Your task to perform on an android device: Go to calendar. Show me events next week Image 0: 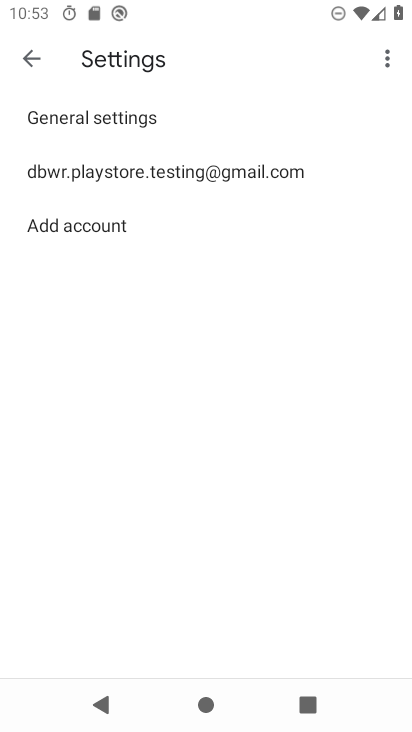
Step 0: press home button
Your task to perform on an android device: Go to calendar. Show me events next week Image 1: 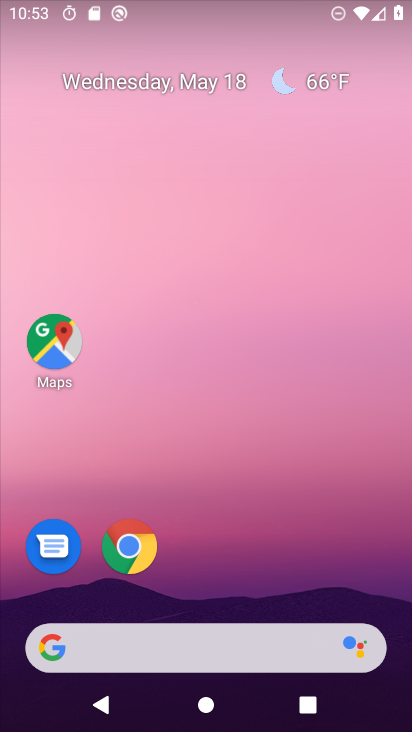
Step 1: click (214, 83)
Your task to perform on an android device: Go to calendar. Show me events next week Image 2: 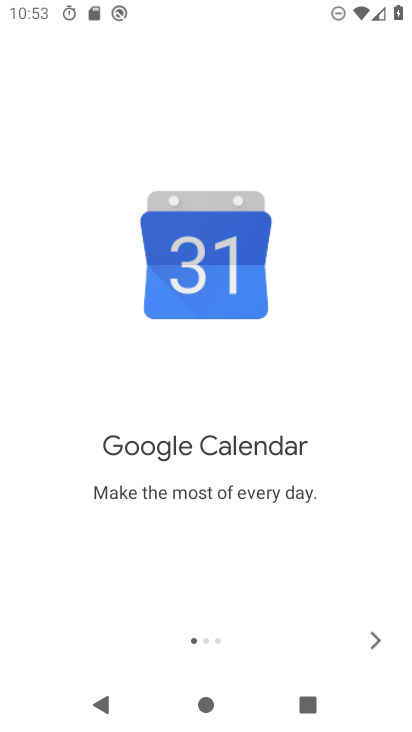
Step 2: click (379, 636)
Your task to perform on an android device: Go to calendar. Show me events next week Image 3: 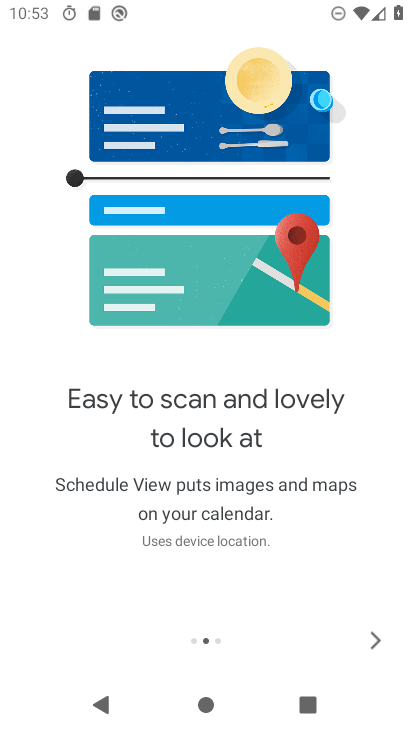
Step 3: click (379, 636)
Your task to perform on an android device: Go to calendar. Show me events next week Image 4: 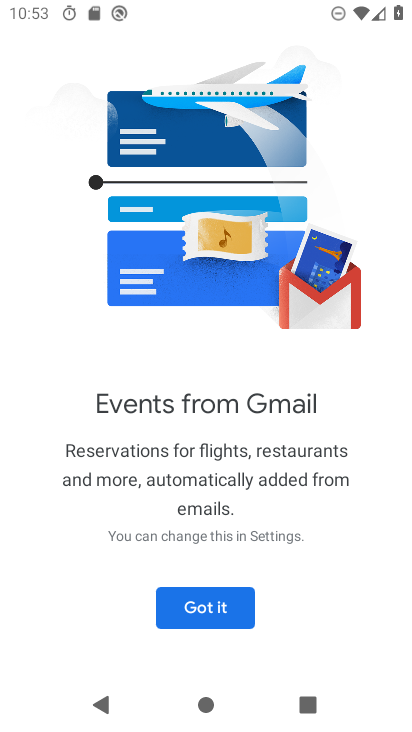
Step 4: click (193, 605)
Your task to perform on an android device: Go to calendar. Show me events next week Image 5: 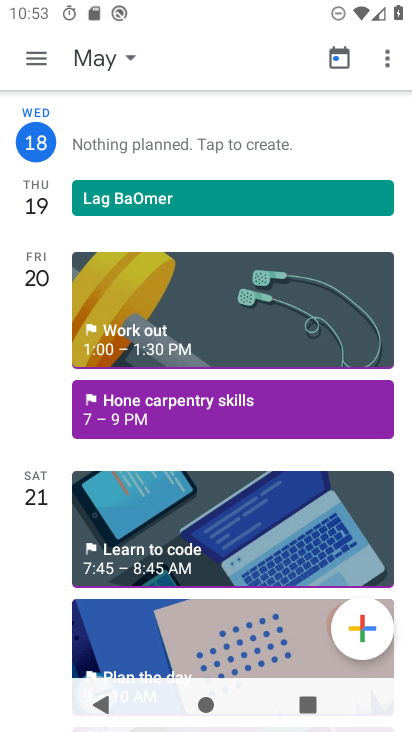
Step 5: click (81, 50)
Your task to perform on an android device: Go to calendar. Show me events next week Image 6: 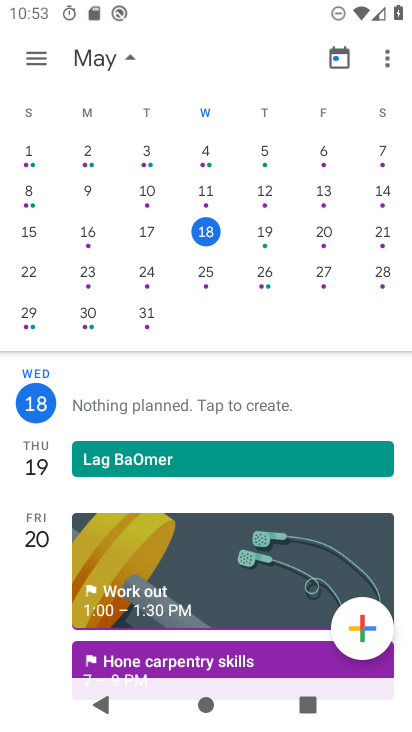
Step 6: click (138, 281)
Your task to perform on an android device: Go to calendar. Show me events next week Image 7: 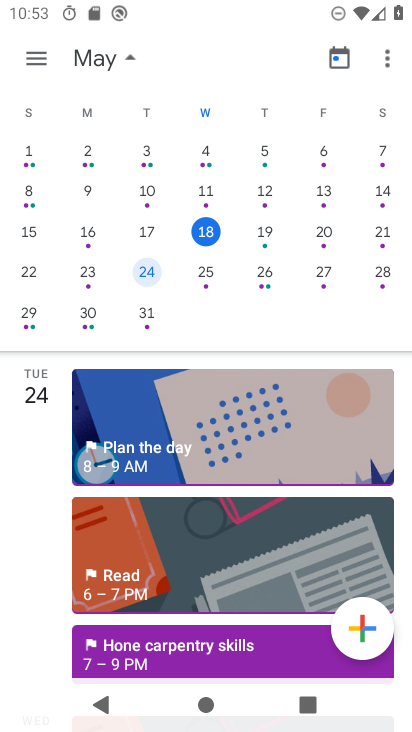
Step 7: task complete